Your task to perform on an android device: Go to Amazon Image 0: 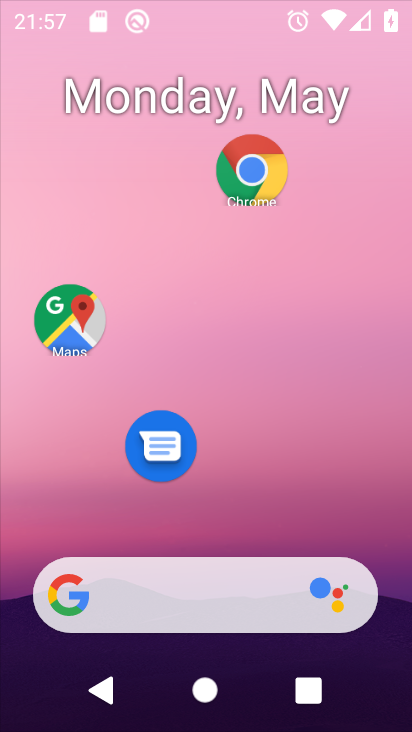
Step 0: press home button
Your task to perform on an android device: Go to Amazon Image 1: 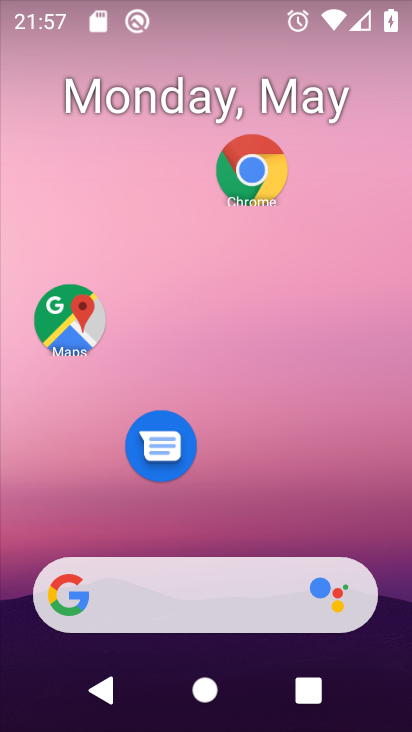
Step 1: drag from (231, 528) to (235, 39)
Your task to perform on an android device: Go to Amazon Image 2: 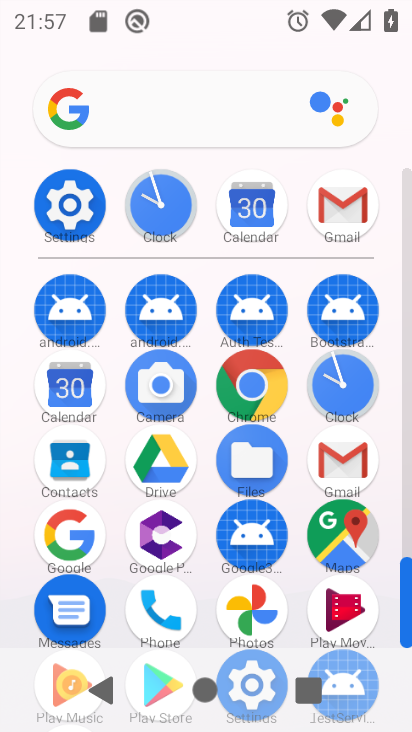
Step 2: click (245, 380)
Your task to perform on an android device: Go to Amazon Image 3: 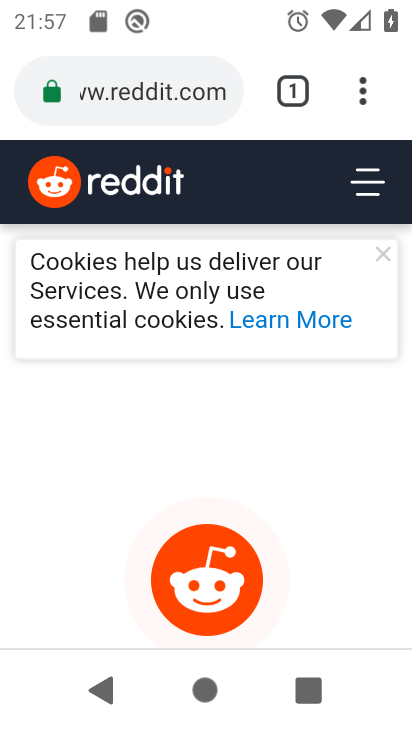
Step 3: click (298, 90)
Your task to perform on an android device: Go to Amazon Image 4: 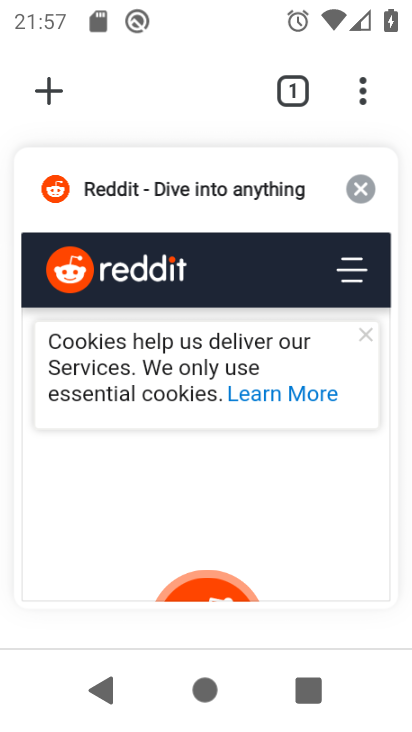
Step 4: click (360, 192)
Your task to perform on an android device: Go to Amazon Image 5: 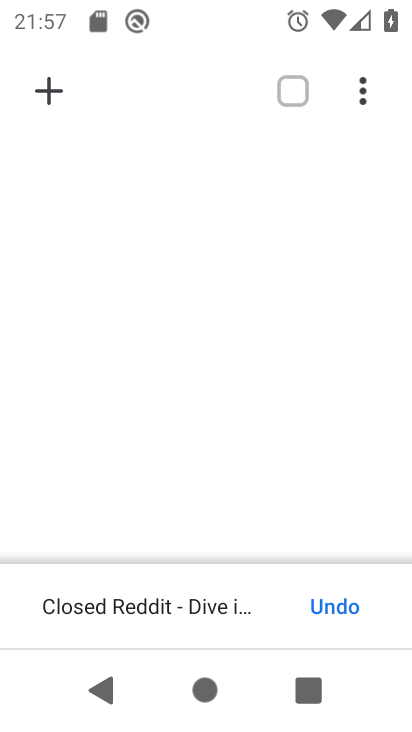
Step 5: click (52, 95)
Your task to perform on an android device: Go to Amazon Image 6: 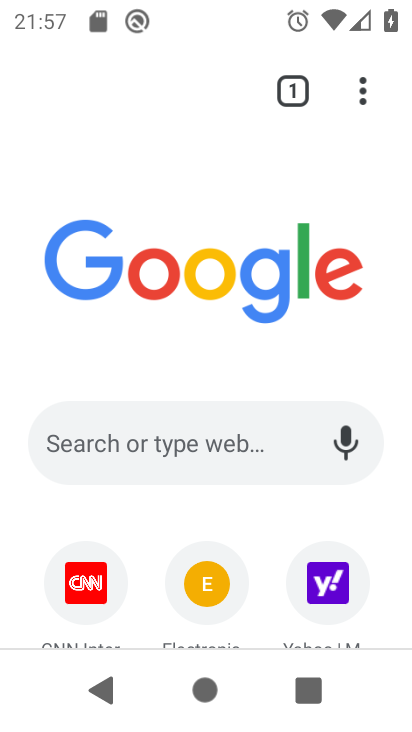
Step 6: click (129, 434)
Your task to perform on an android device: Go to Amazon Image 7: 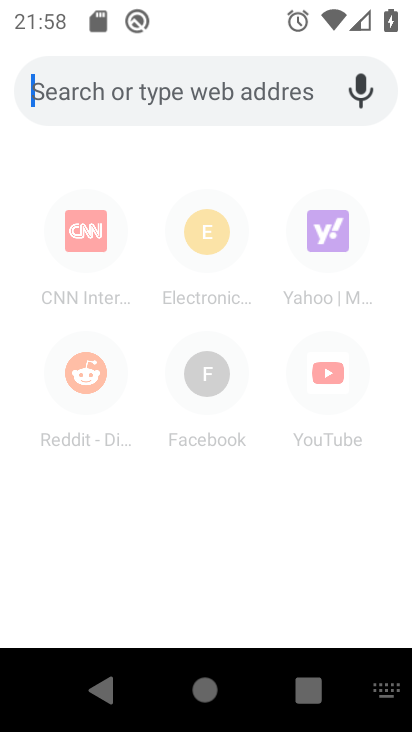
Step 7: type "amazon"
Your task to perform on an android device: Go to Amazon Image 8: 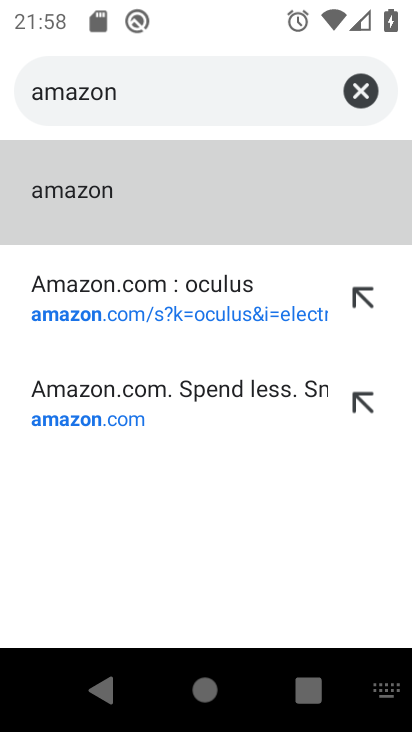
Step 8: click (144, 296)
Your task to perform on an android device: Go to Amazon Image 9: 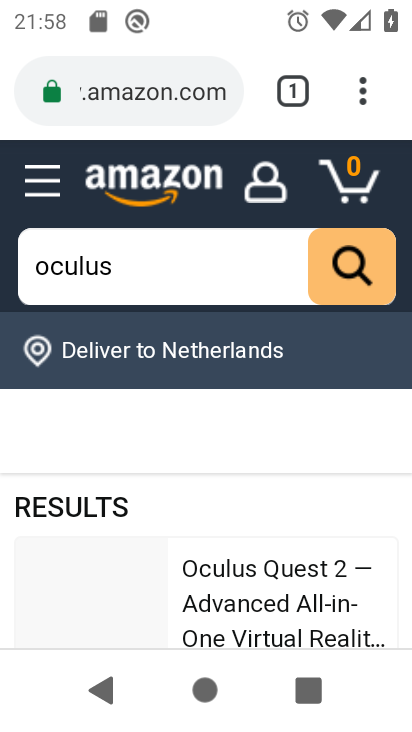
Step 9: task complete